Your task to perform on an android device: Go to Yahoo.com Image 0: 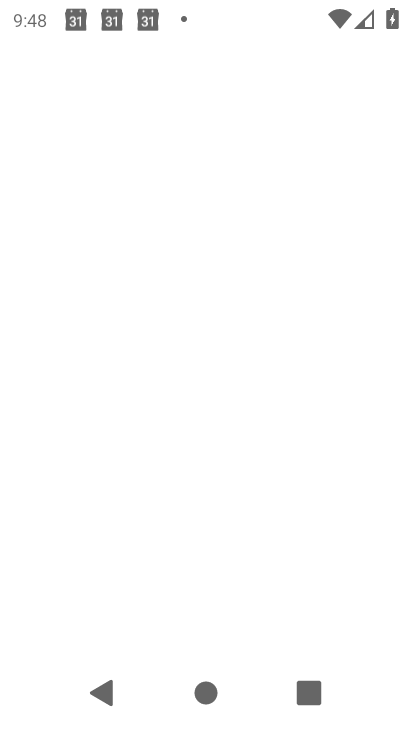
Step 0: press home button
Your task to perform on an android device: Go to Yahoo.com Image 1: 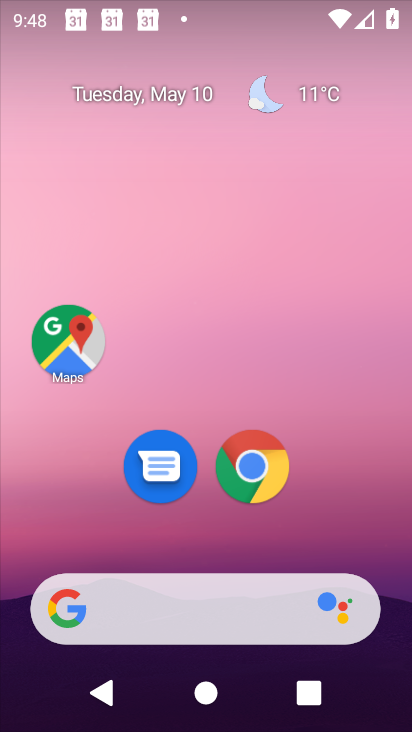
Step 1: drag from (320, 473) to (329, 32)
Your task to perform on an android device: Go to Yahoo.com Image 2: 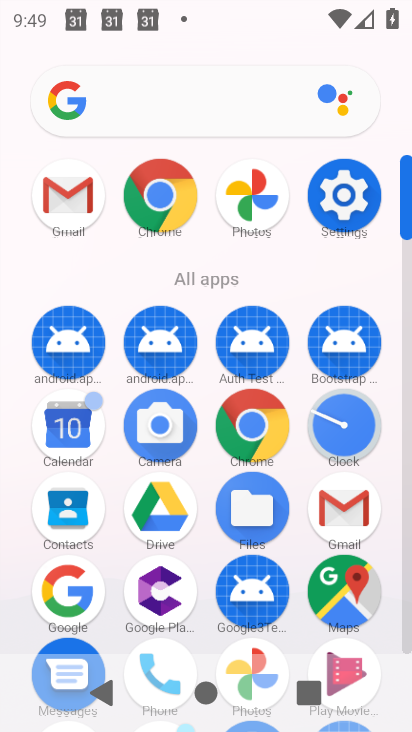
Step 2: click (148, 198)
Your task to perform on an android device: Go to Yahoo.com Image 3: 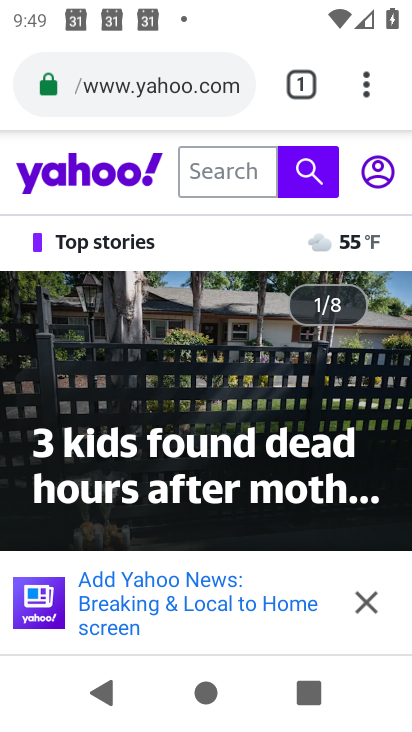
Step 3: task complete